Your task to perform on an android device: install app "Mercado Libre" Image 0: 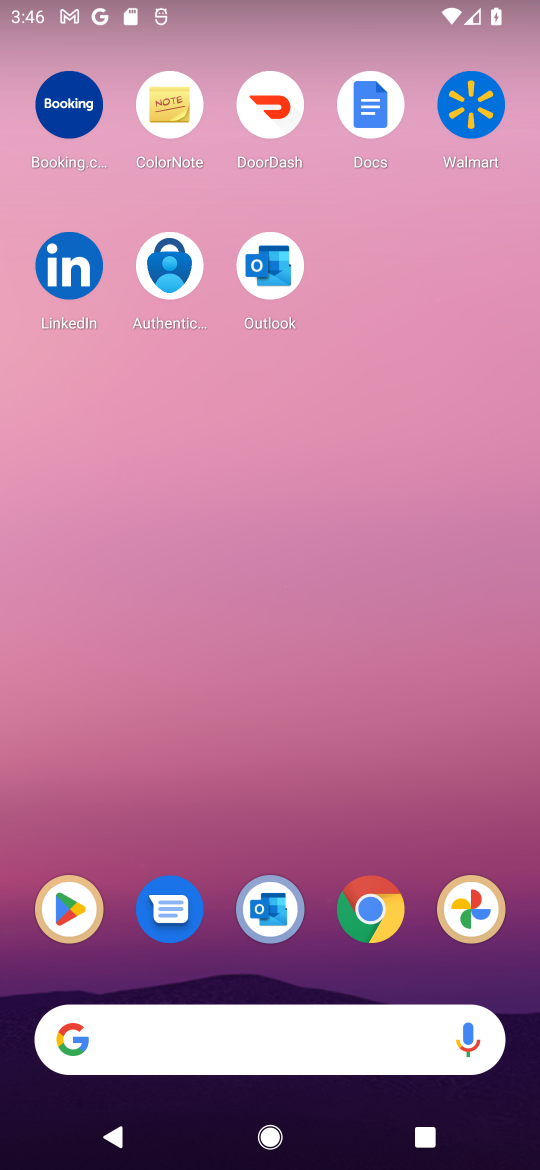
Step 0: drag from (227, 980) to (338, 178)
Your task to perform on an android device: install app "Mercado Libre" Image 1: 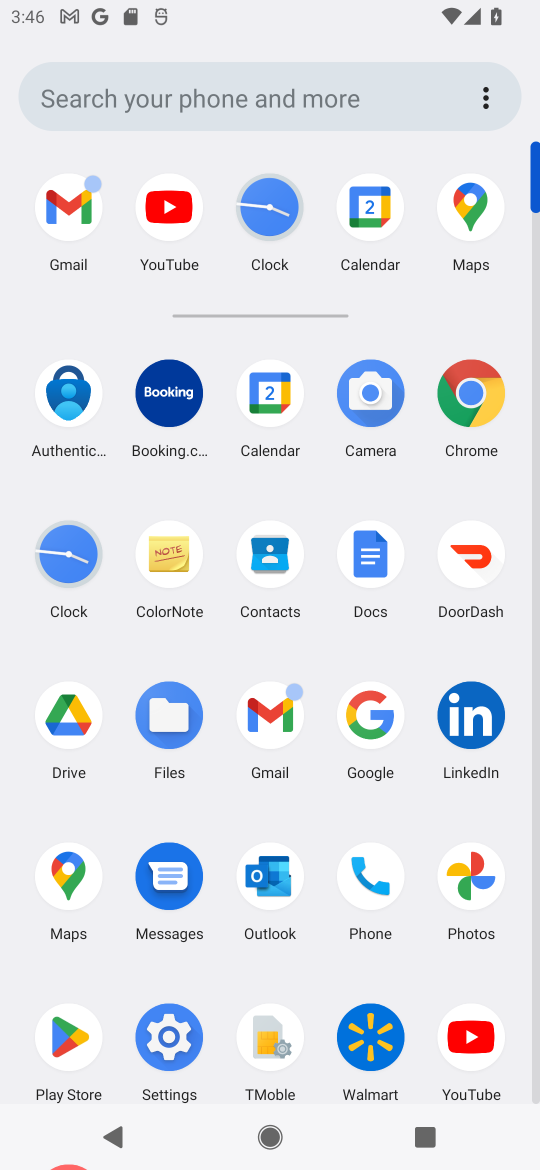
Step 1: click (76, 1025)
Your task to perform on an android device: install app "Mercado Libre" Image 2: 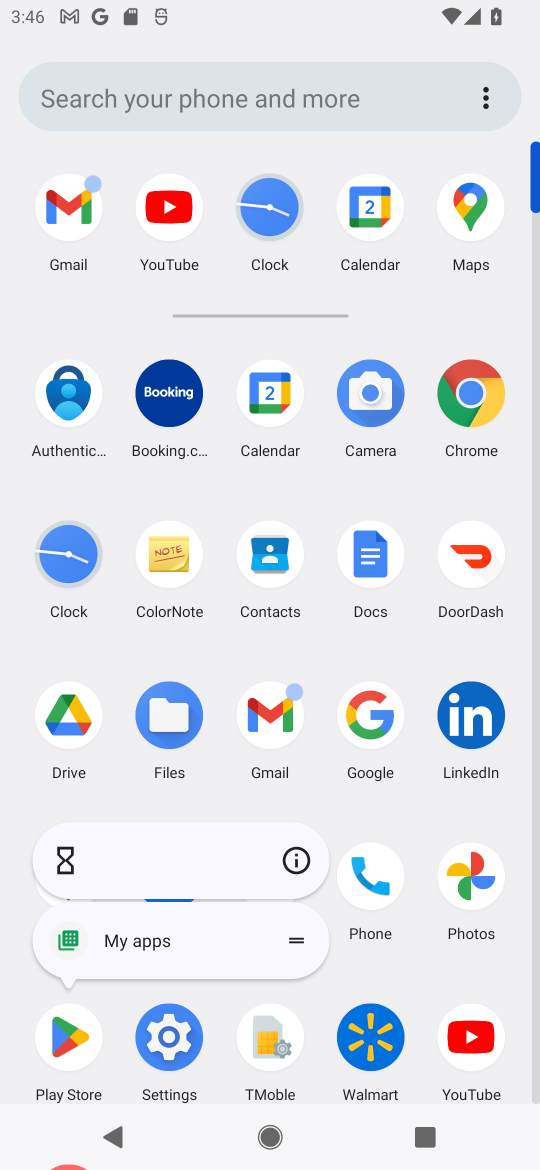
Step 2: drag from (320, 759) to (300, 1)
Your task to perform on an android device: install app "Mercado Libre" Image 3: 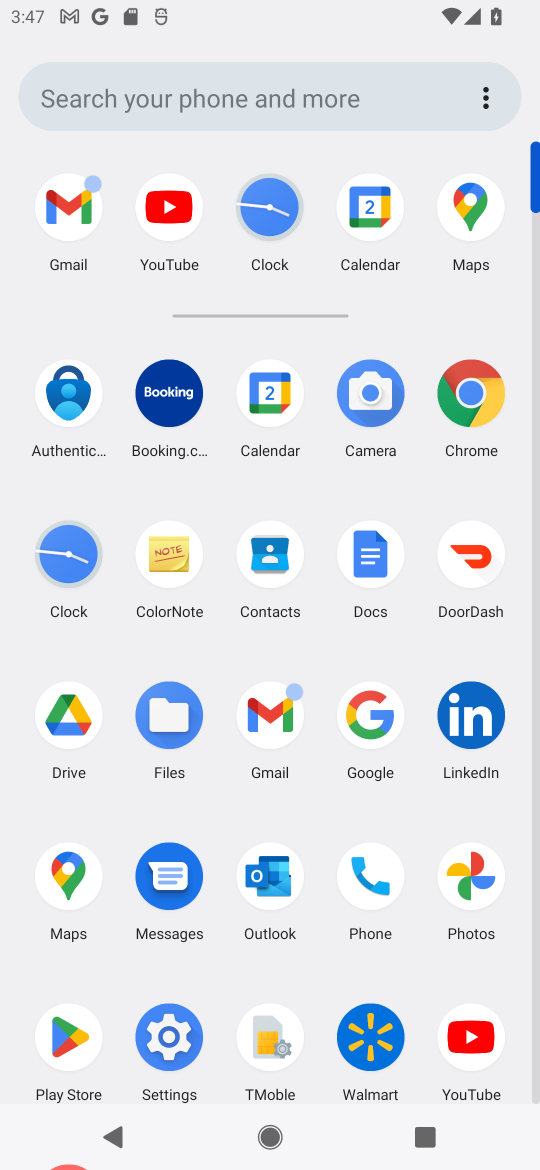
Step 3: click (59, 1023)
Your task to perform on an android device: install app "Mercado Libre" Image 4: 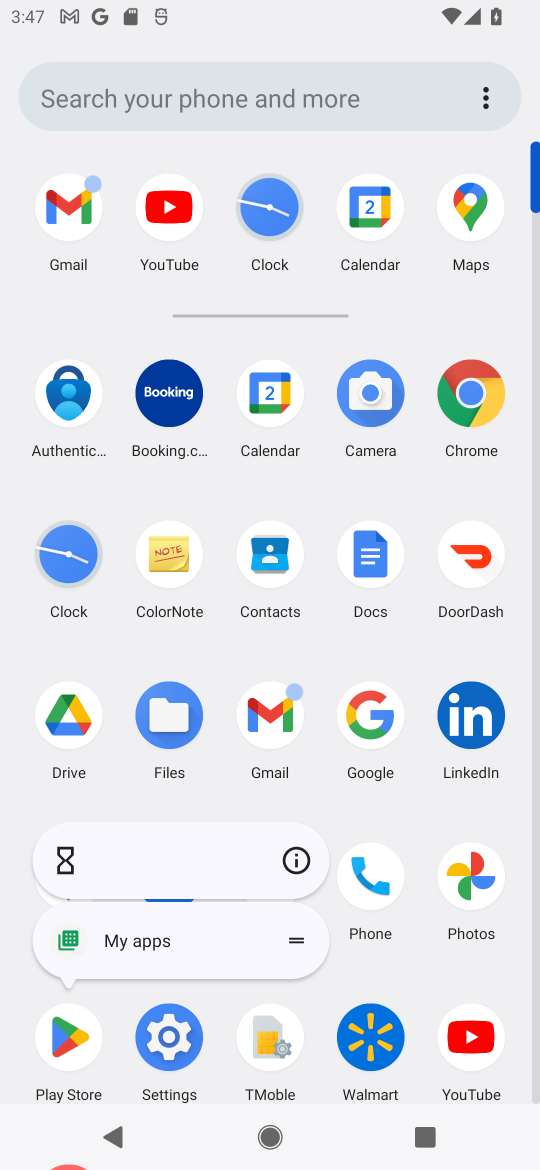
Step 4: click (295, 856)
Your task to perform on an android device: install app "Mercado Libre" Image 5: 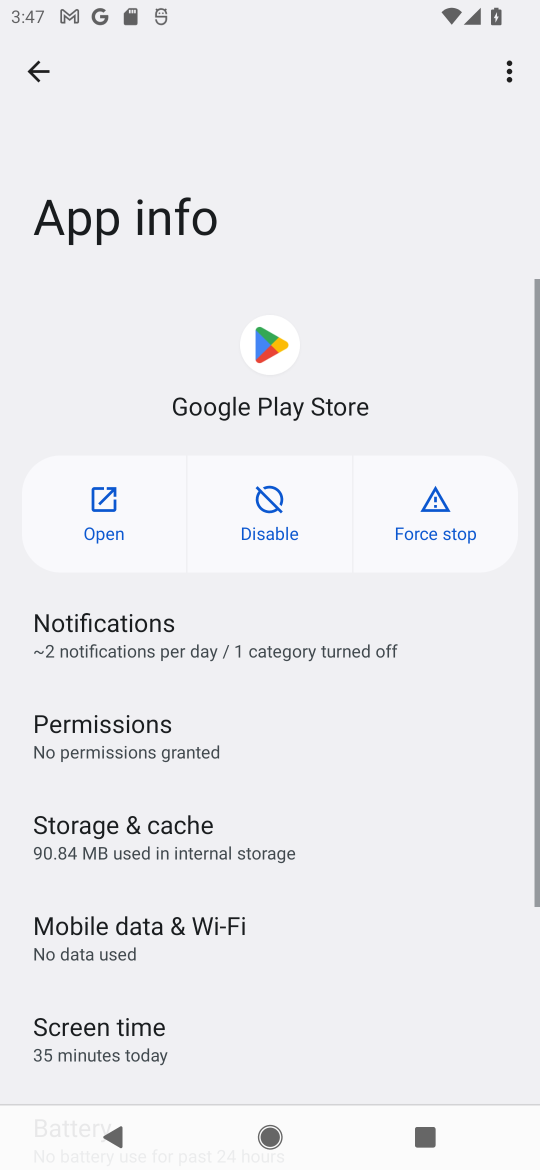
Step 5: click (99, 521)
Your task to perform on an android device: install app "Mercado Libre" Image 6: 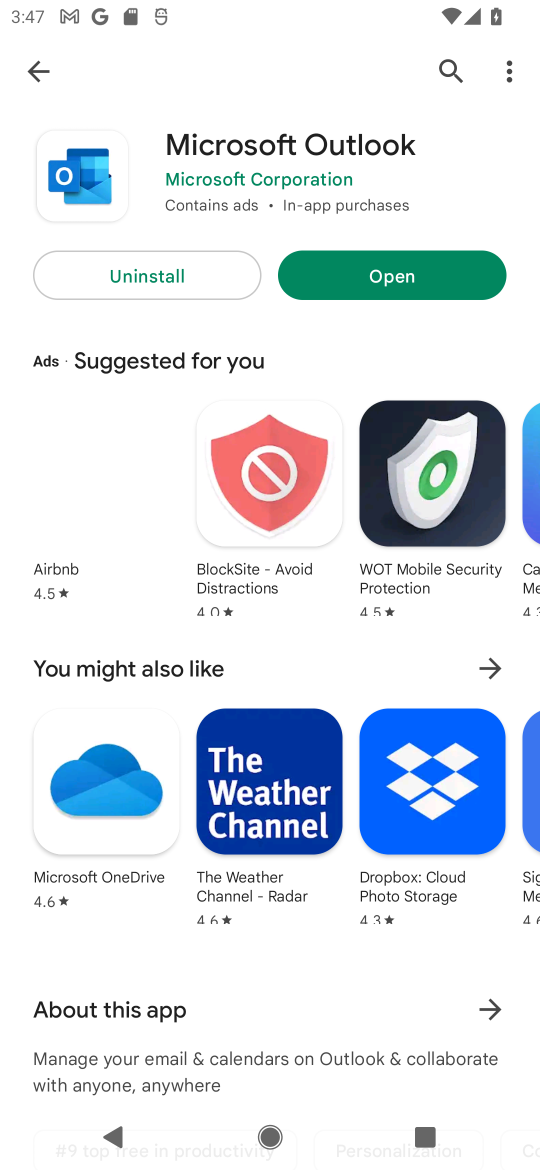
Step 6: click (461, 82)
Your task to perform on an android device: install app "Mercado Libre" Image 7: 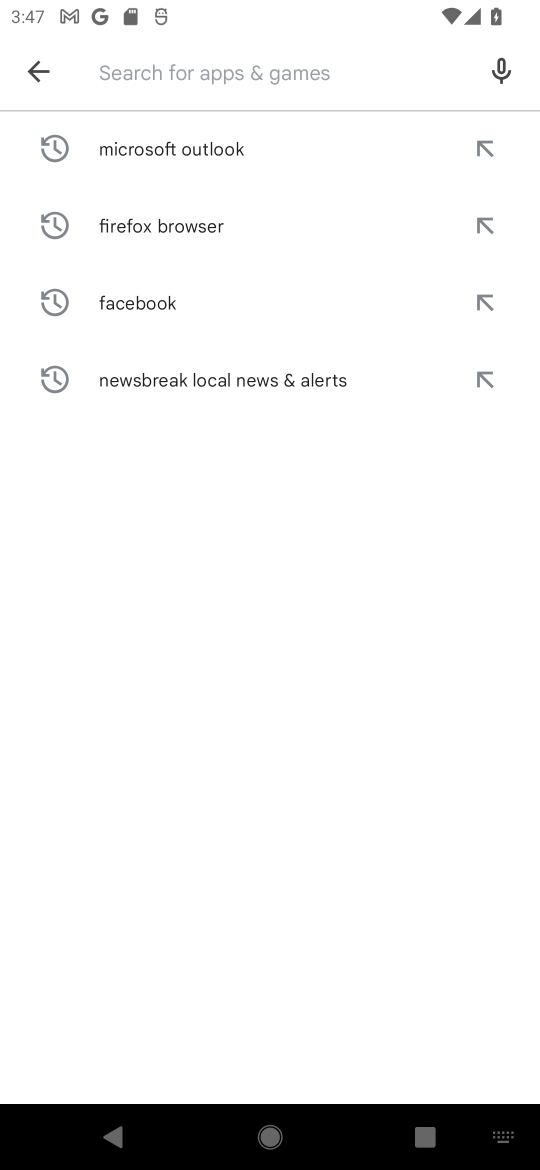
Step 7: type "Mercado Libre"
Your task to perform on an android device: install app "Mercado Libre" Image 8: 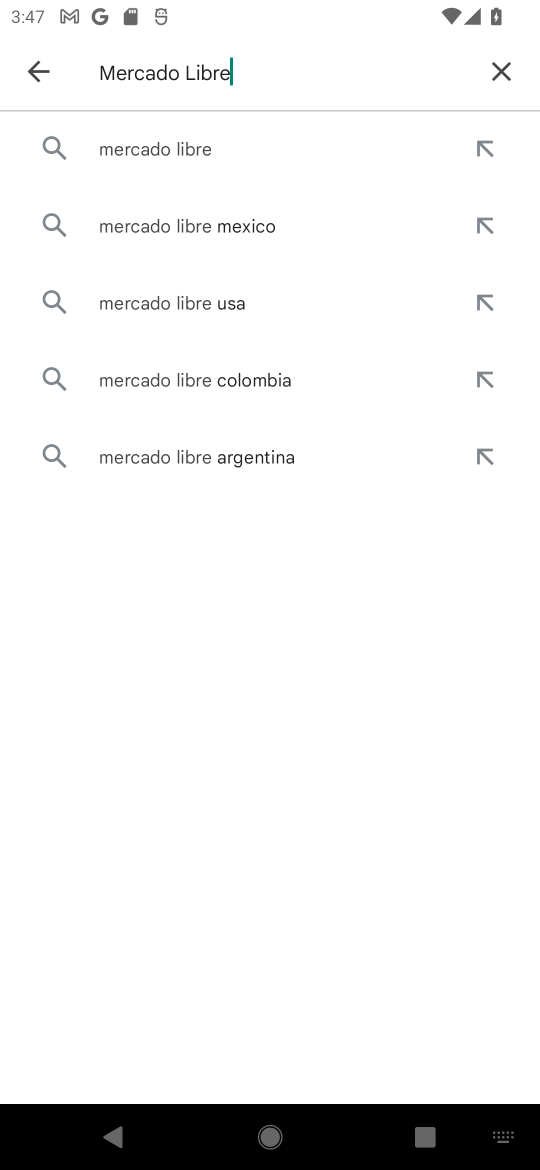
Step 8: click (172, 151)
Your task to perform on an android device: install app "Mercado Libre" Image 9: 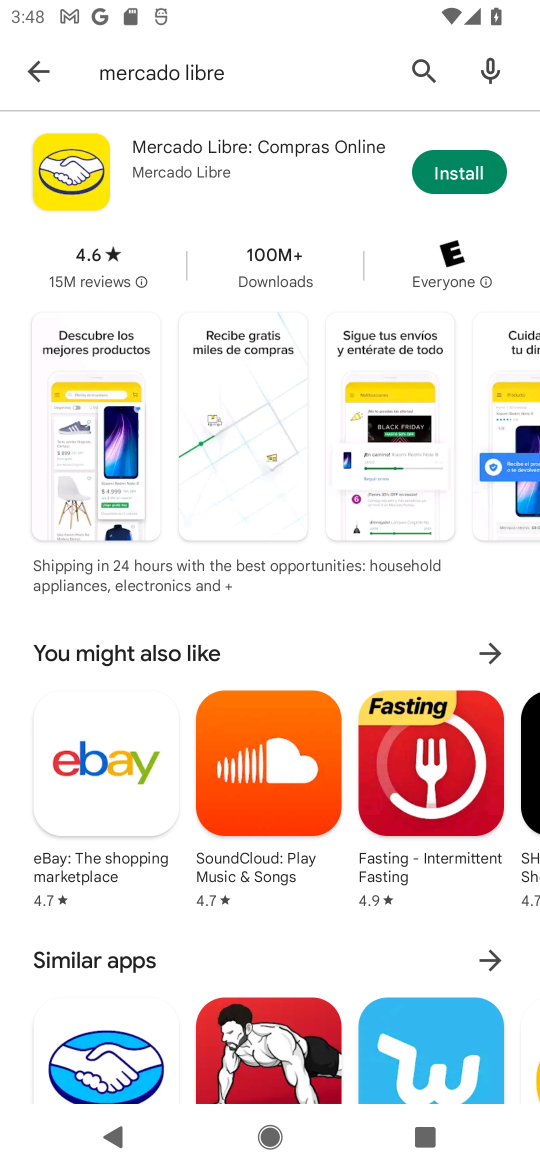
Step 9: click (459, 170)
Your task to perform on an android device: install app "Mercado Libre" Image 10: 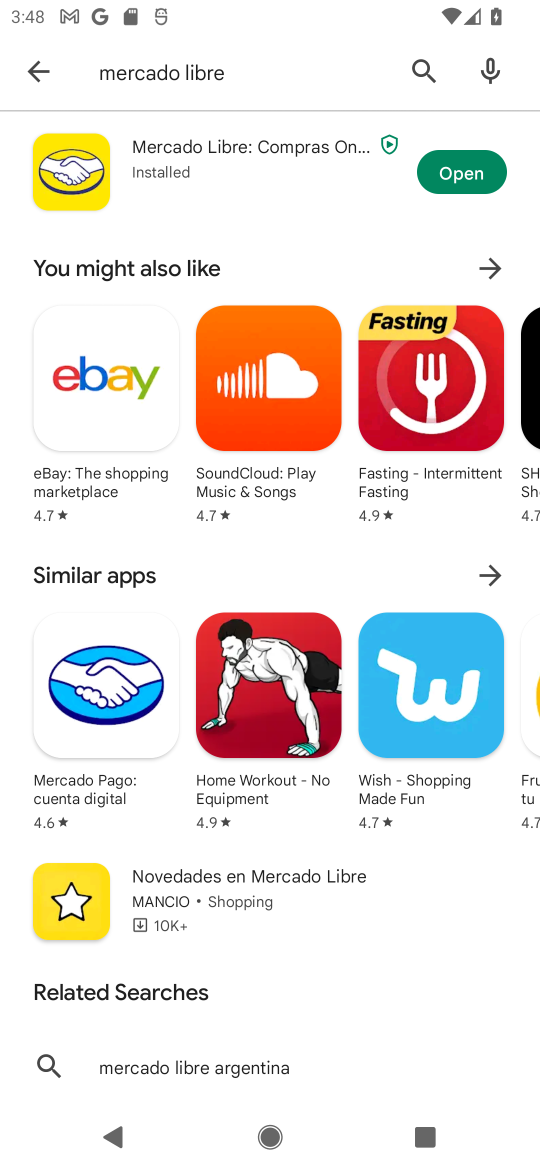
Step 10: click (204, 179)
Your task to perform on an android device: install app "Mercado Libre" Image 11: 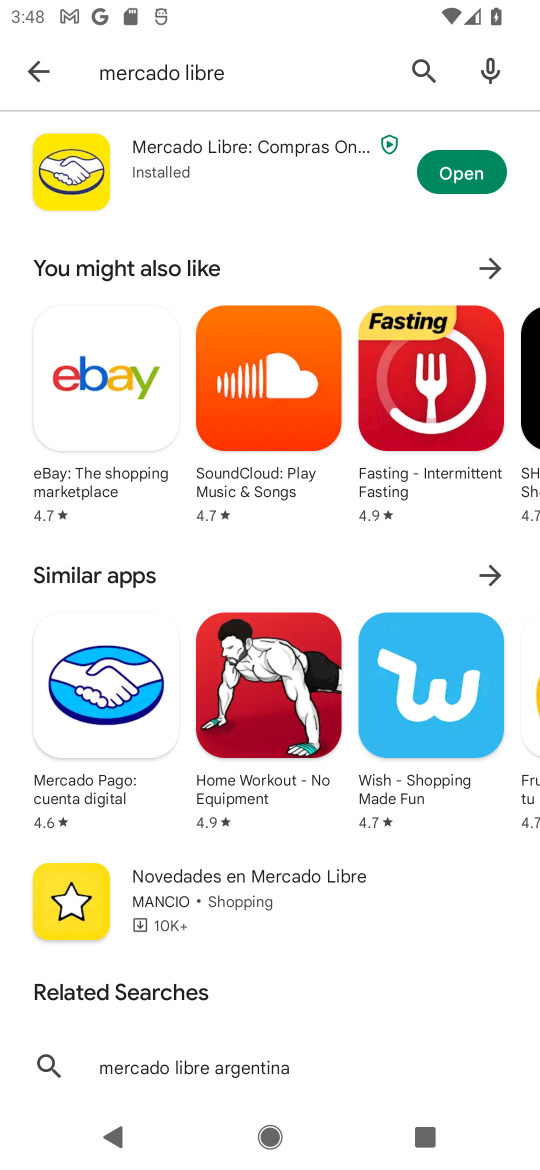
Step 11: task complete